Your task to perform on an android device: open app "Spotify: Music and Podcasts" (install if not already installed), go to login, and select forgot password Image 0: 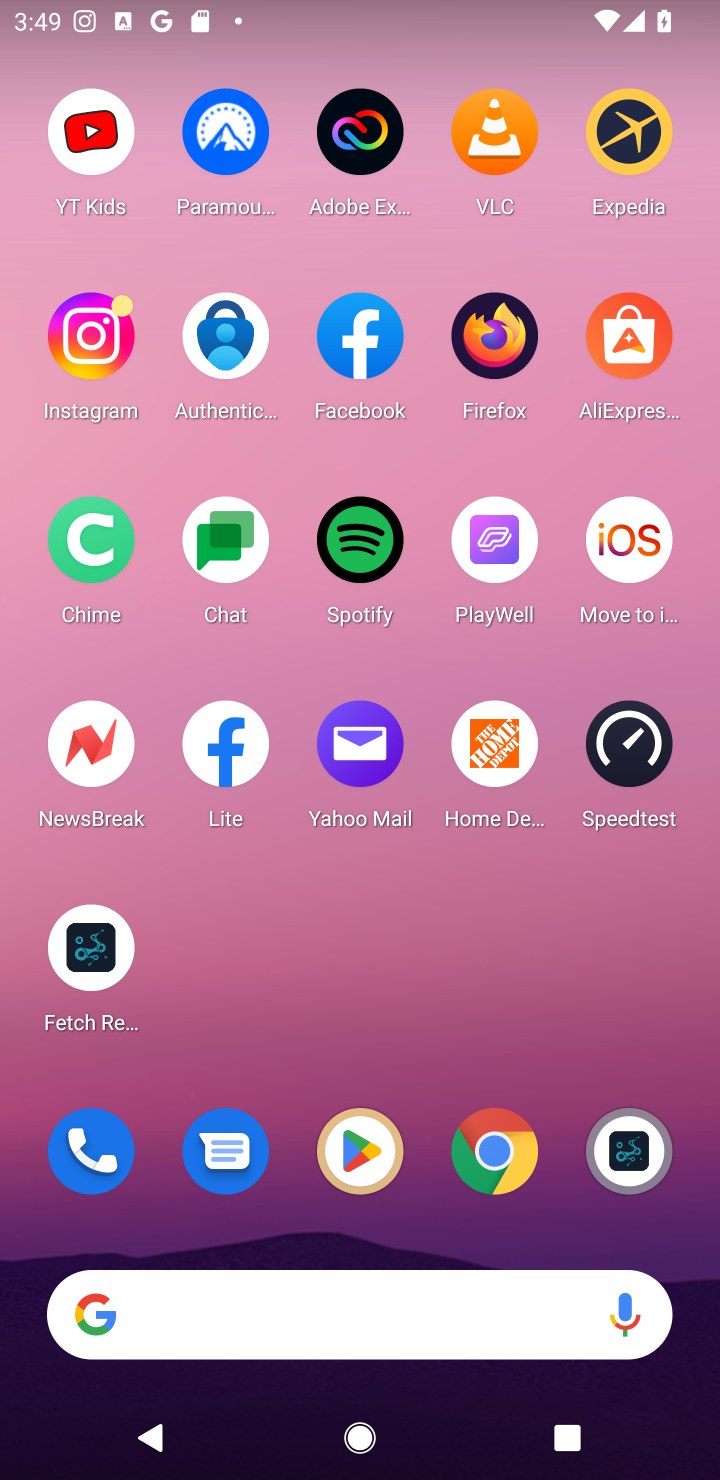
Step 0: press home button
Your task to perform on an android device: open app "Spotify: Music and Podcasts" (install if not already installed), go to login, and select forgot password Image 1: 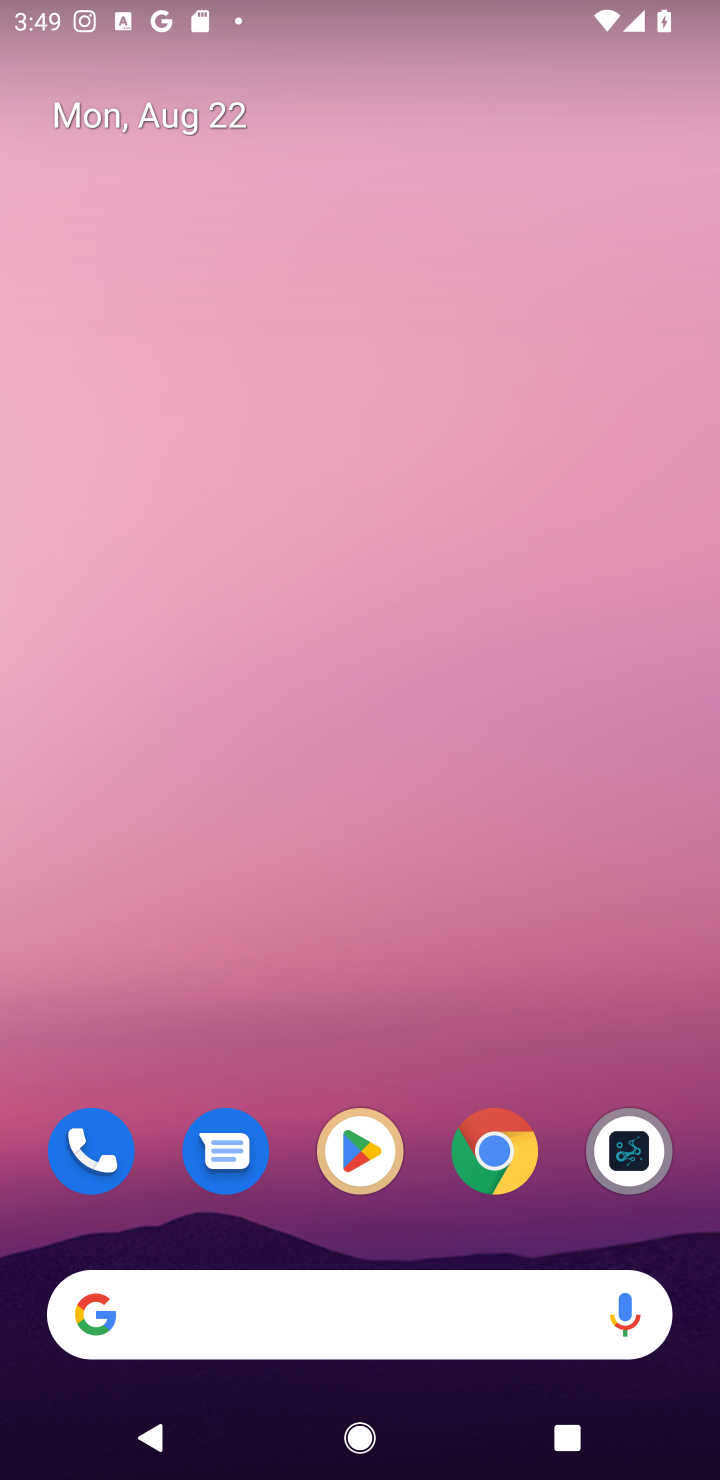
Step 1: click (362, 1156)
Your task to perform on an android device: open app "Spotify: Music and Podcasts" (install if not already installed), go to login, and select forgot password Image 2: 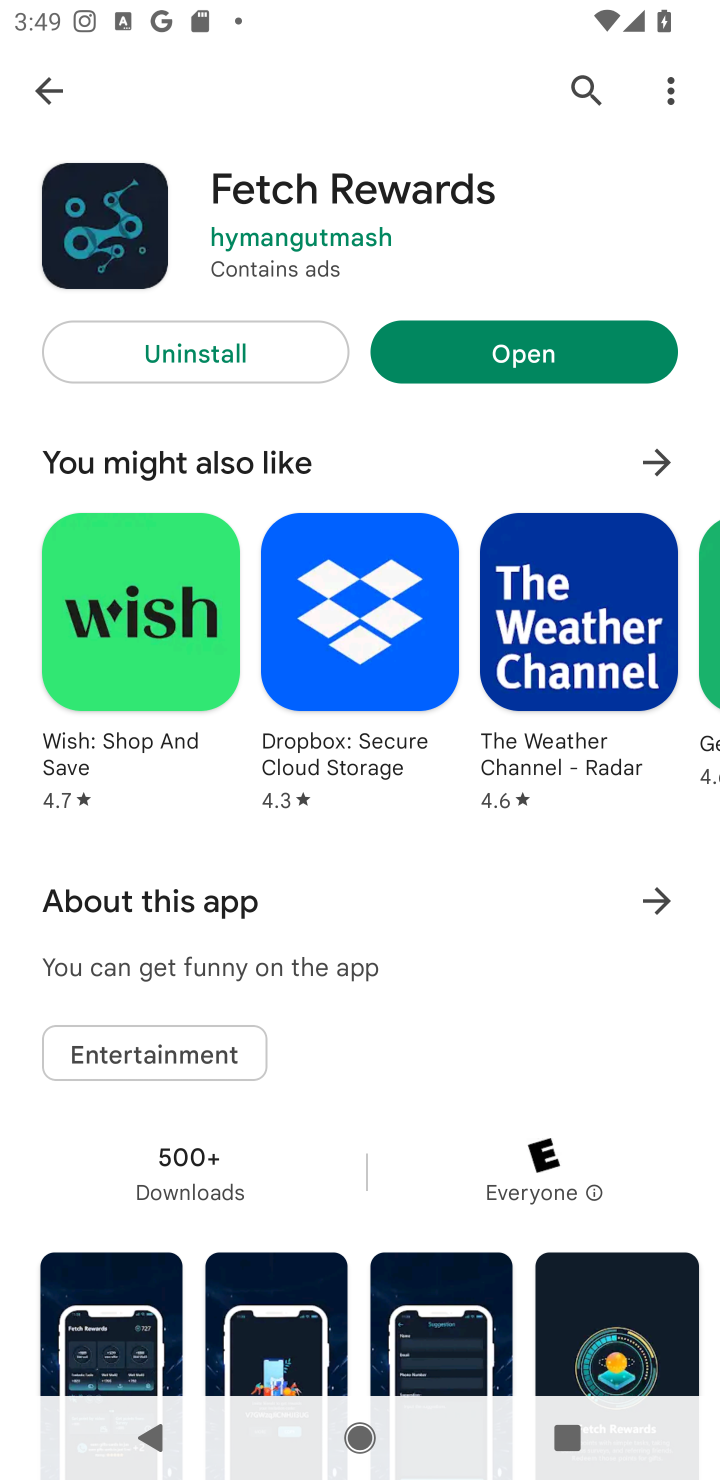
Step 2: click (584, 92)
Your task to perform on an android device: open app "Spotify: Music and Podcasts" (install if not already installed), go to login, and select forgot password Image 3: 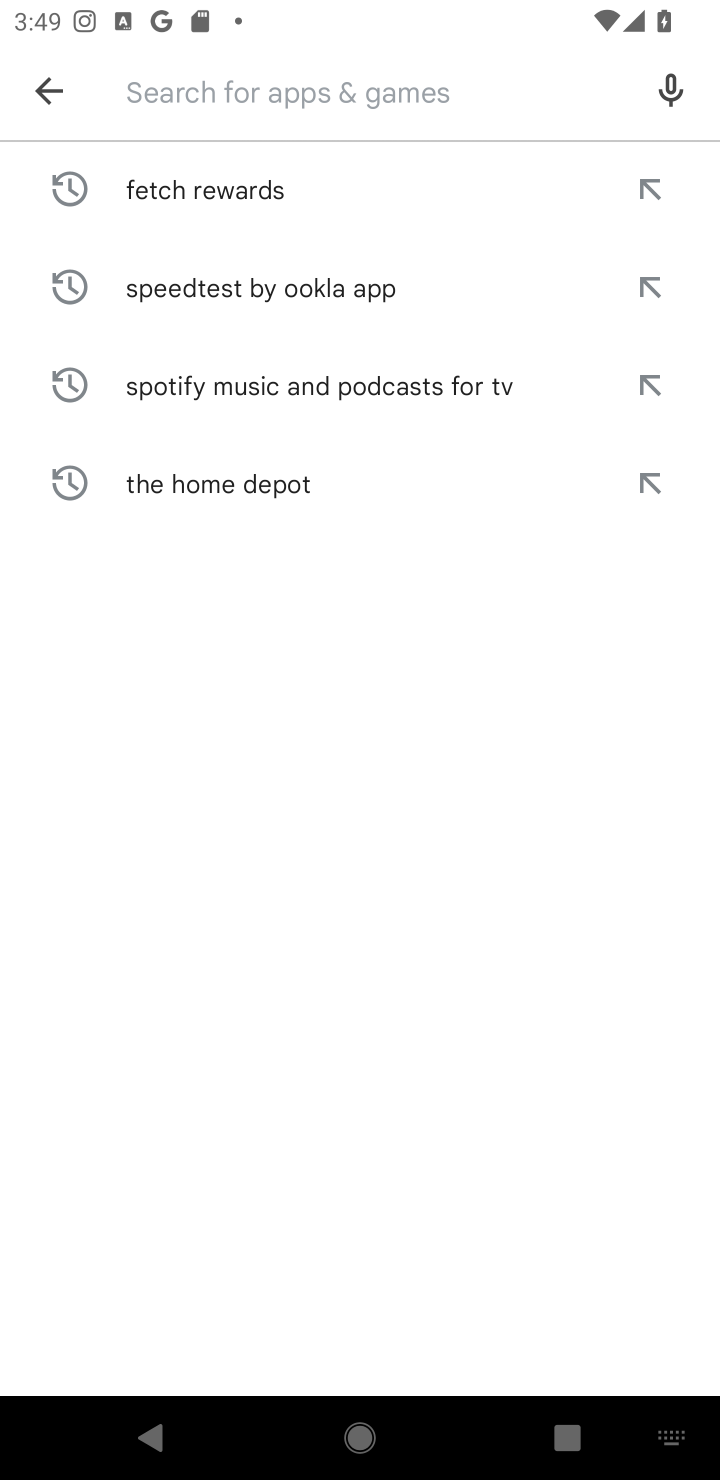
Step 3: type "Spotify: Music and Podcasts"
Your task to perform on an android device: open app "Spotify: Music and Podcasts" (install if not already installed), go to login, and select forgot password Image 4: 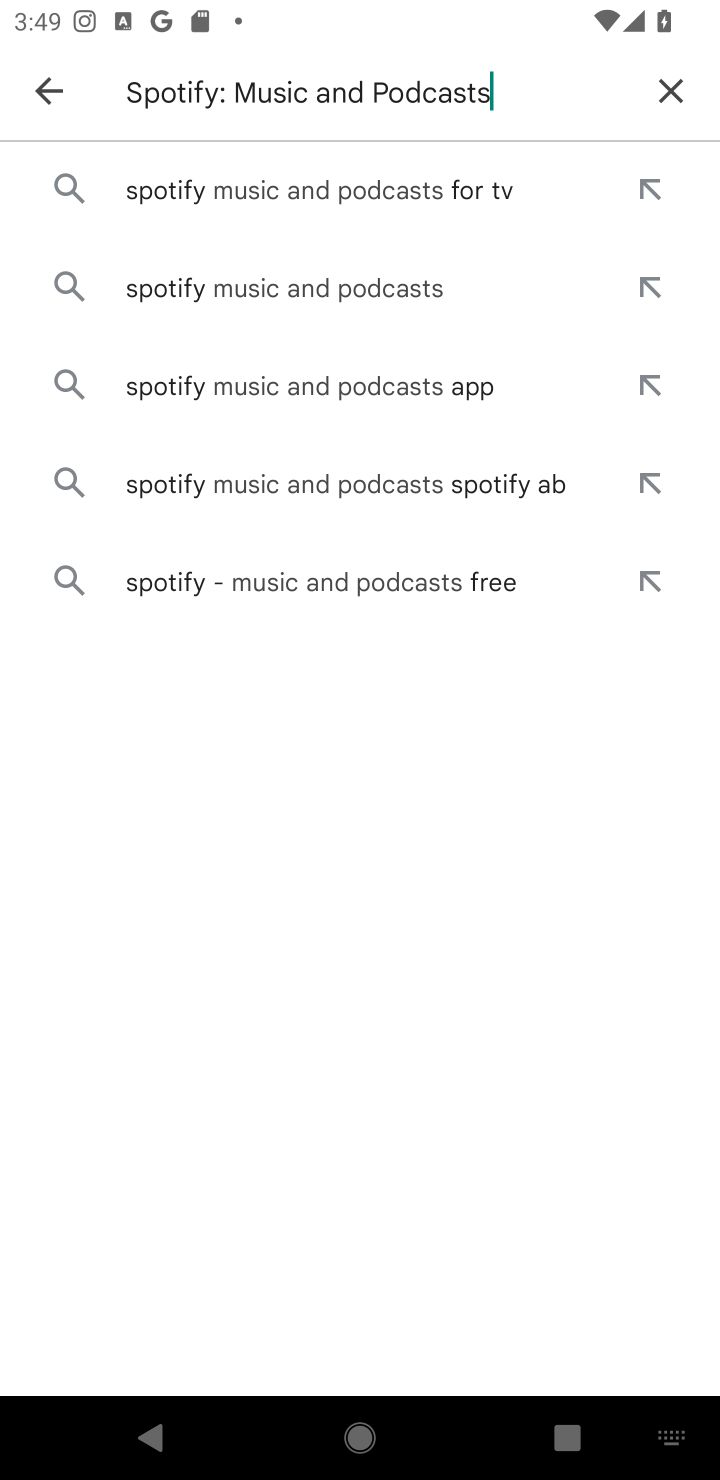
Step 4: click (394, 196)
Your task to perform on an android device: open app "Spotify: Music and Podcasts" (install if not already installed), go to login, and select forgot password Image 5: 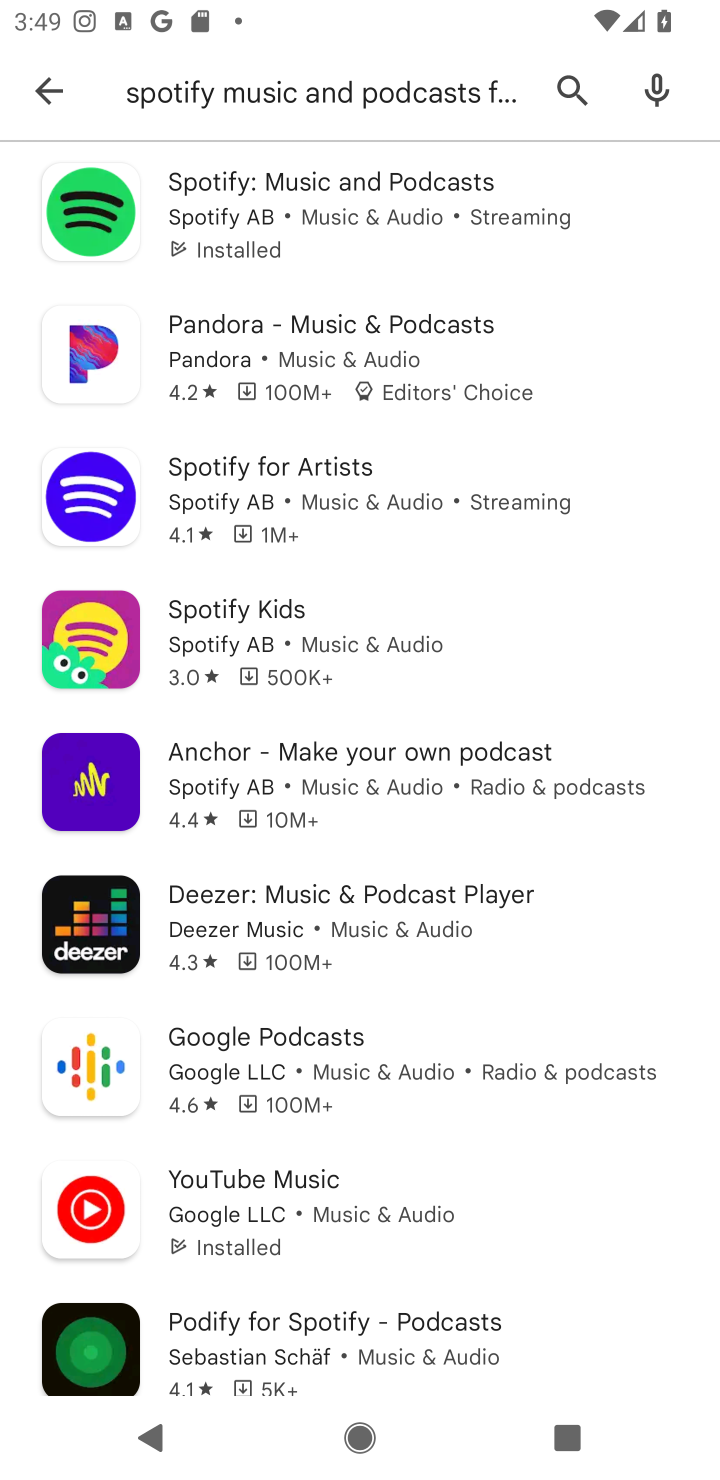
Step 5: click (289, 230)
Your task to perform on an android device: open app "Spotify: Music and Podcasts" (install if not already installed), go to login, and select forgot password Image 6: 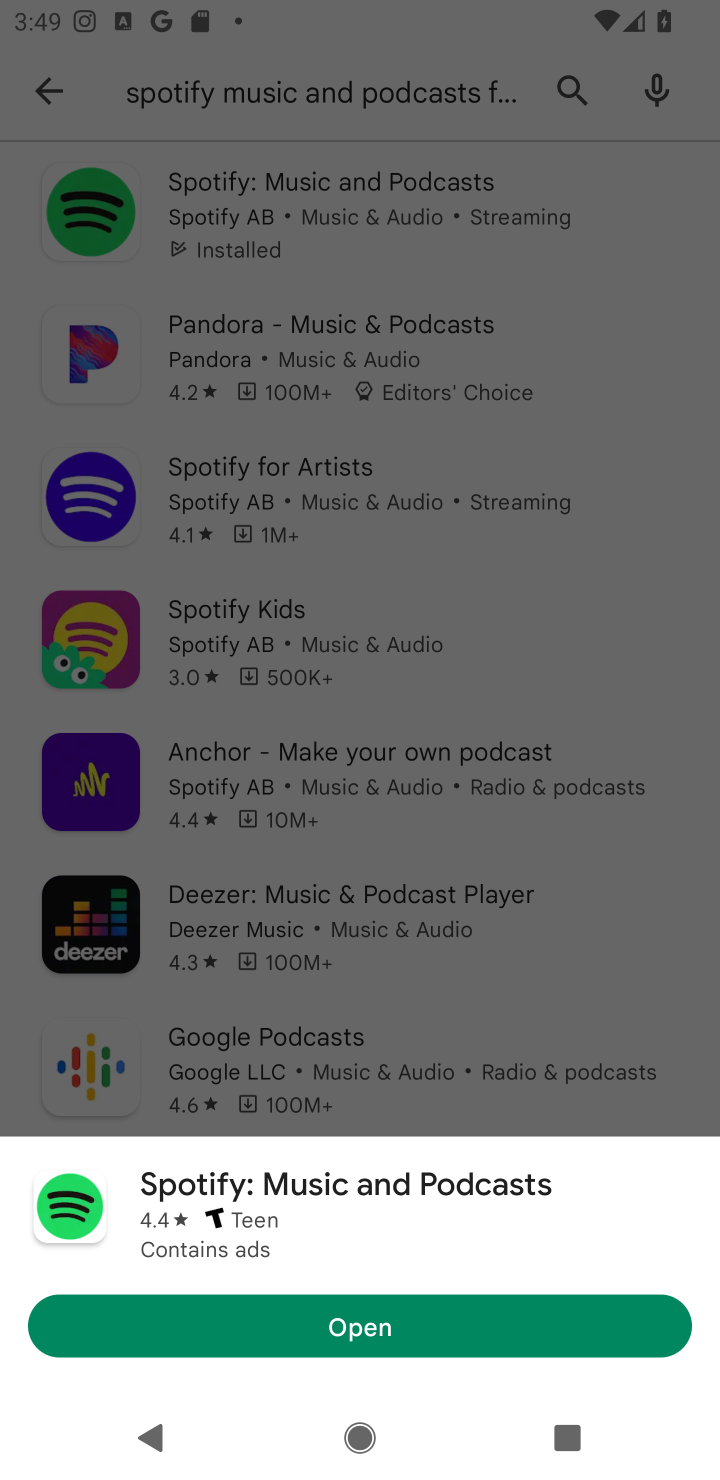
Step 6: click (380, 1327)
Your task to perform on an android device: open app "Spotify: Music and Podcasts" (install if not already installed), go to login, and select forgot password Image 7: 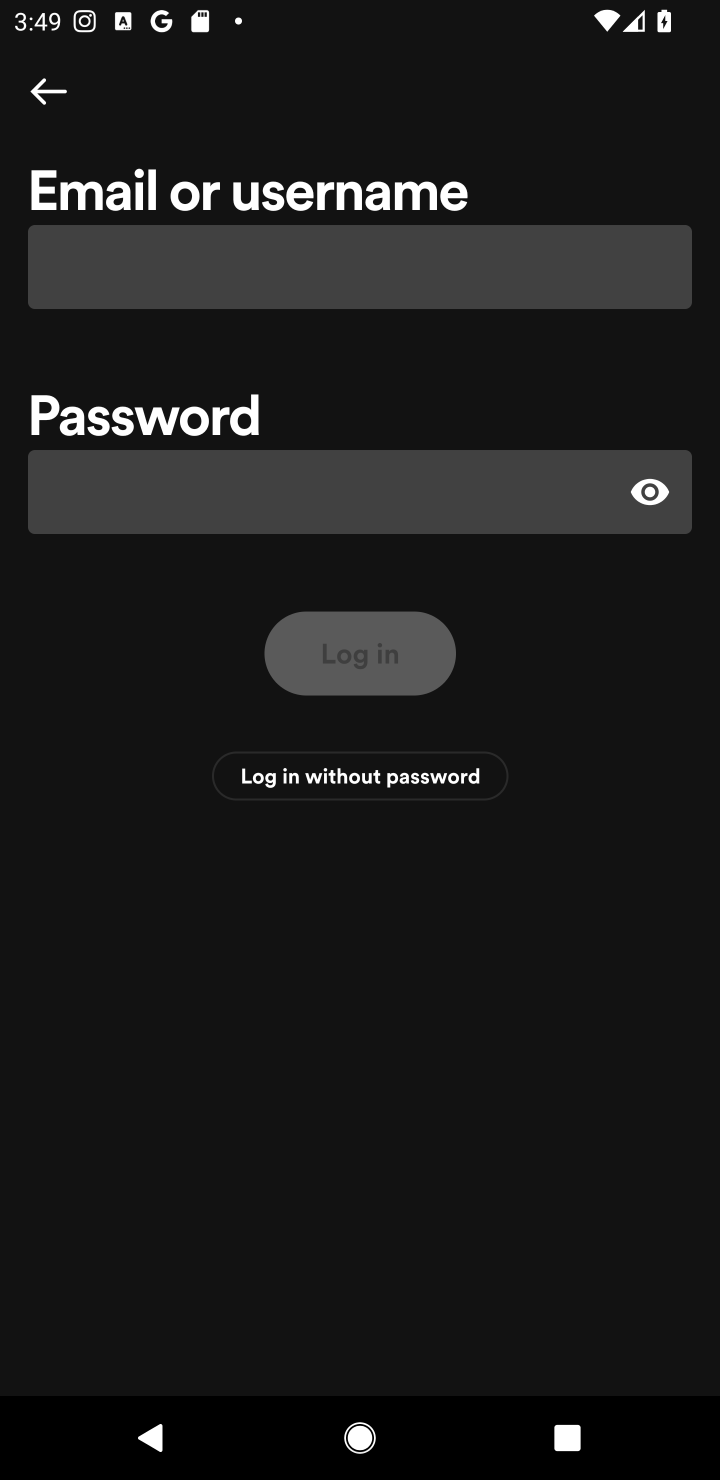
Step 7: task complete